Your task to perform on an android device: search for starred emails in the gmail app Image 0: 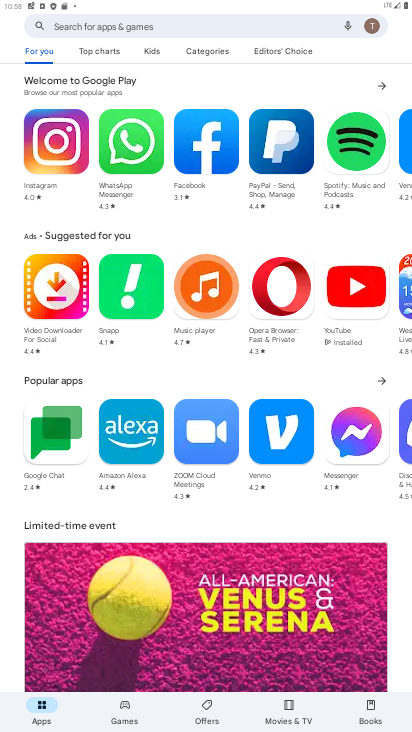
Step 0: press home button
Your task to perform on an android device: search for starred emails in the gmail app Image 1: 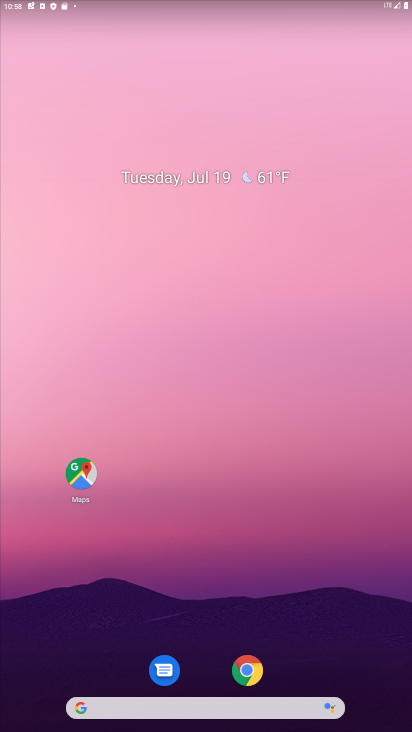
Step 1: drag from (204, 691) to (301, 180)
Your task to perform on an android device: search for starred emails in the gmail app Image 2: 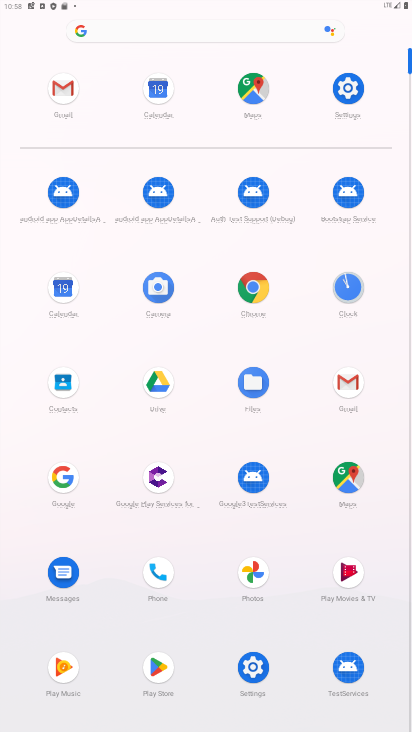
Step 2: click (58, 81)
Your task to perform on an android device: search for starred emails in the gmail app Image 3: 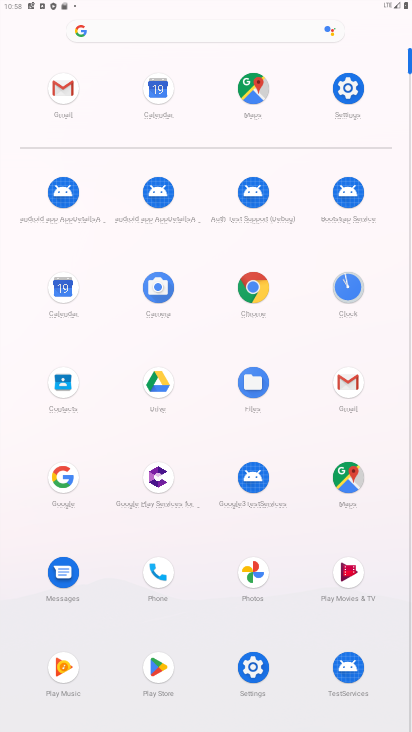
Step 3: click (58, 81)
Your task to perform on an android device: search for starred emails in the gmail app Image 4: 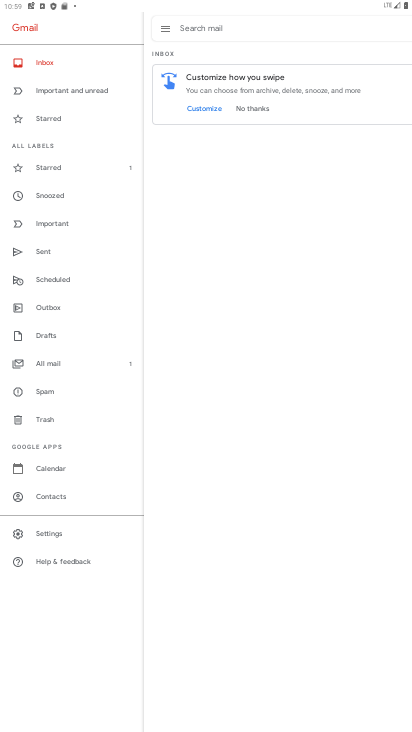
Step 4: click (58, 158)
Your task to perform on an android device: search for starred emails in the gmail app Image 5: 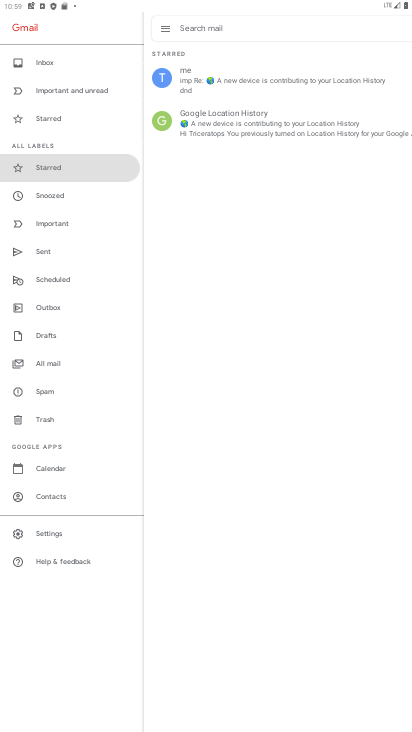
Step 5: task complete